Your task to perform on an android device: turn off location history Image 0: 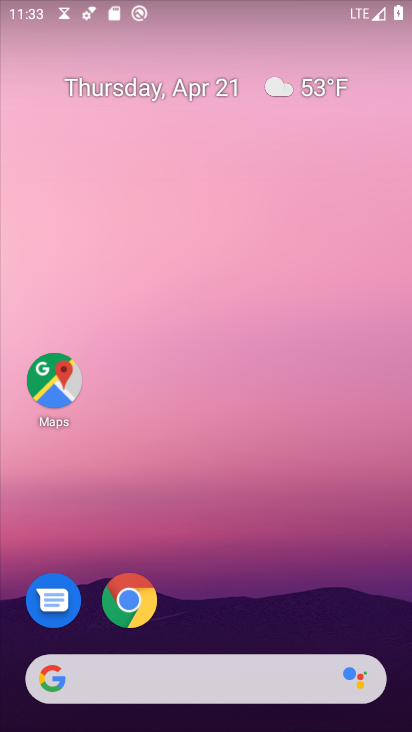
Step 0: drag from (280, 563) to (290, 14)
Your task to perform on an android device: turn off location history Image 1: 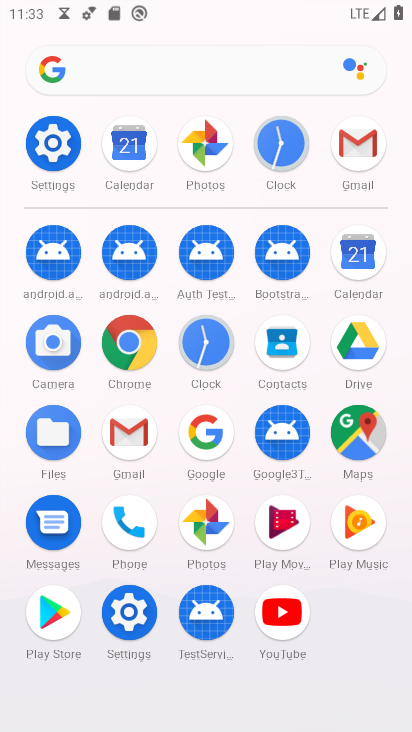
Step 1: click (59, 132)
Your task to perform on an android device: turn off location history Image 2: 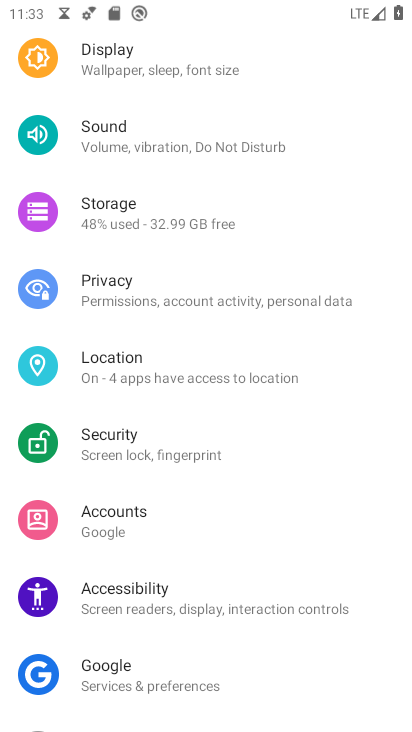
Step 2: click (167, 371)
Your task to perform on an android device: turn off location history Image 3: 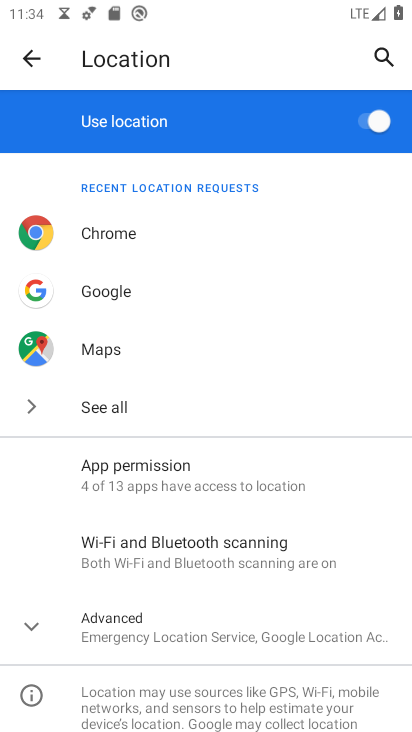
Step 3: drag from (259, 626) to (227, 197)
Your task to perform on an android device: turn off location history Image 4: 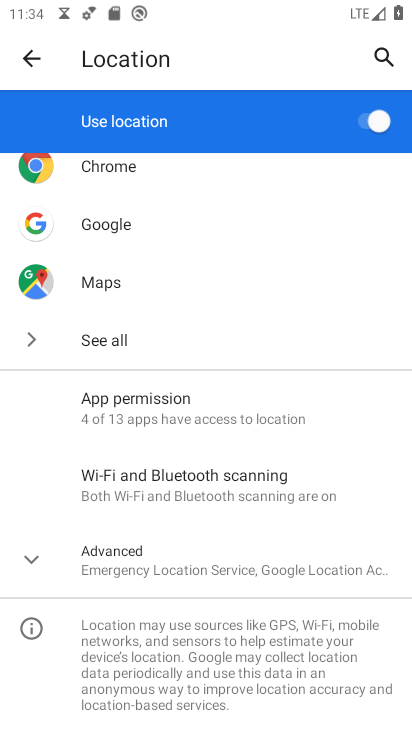
Step 4: click (223, 553)
Your task to perform on an android device: turn off location history Image 5: 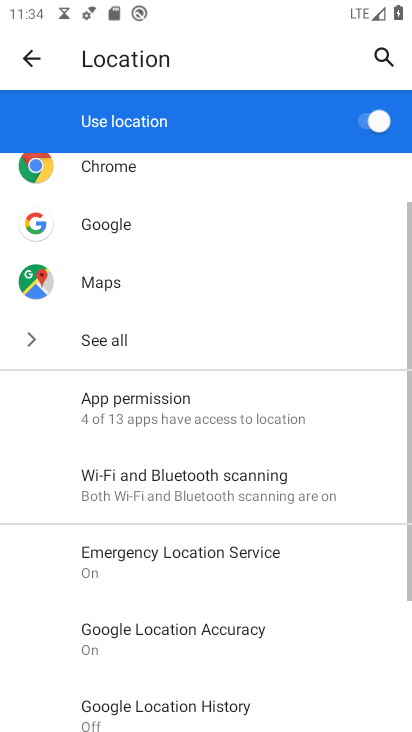
Step 5: drag from (239, 654) to (262, 391)
Your task to perform on an android device: turn off location history Image 6: 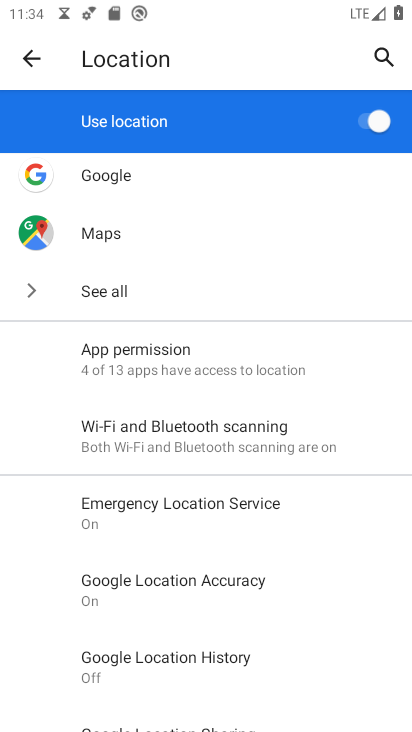
Step 6: click (230, 652)
Your task to perform on an android device: turn off location history Image 7: 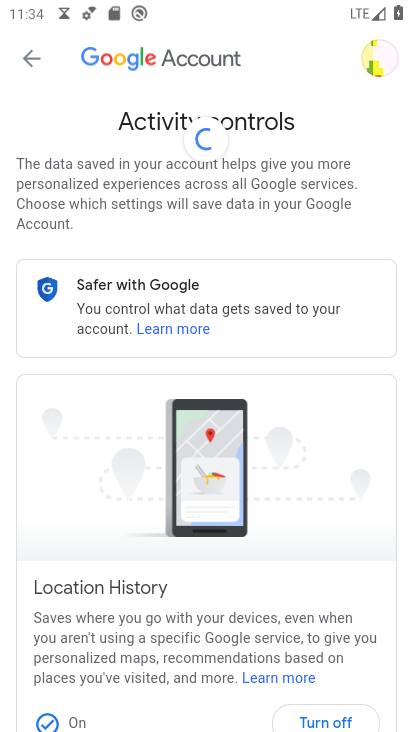
Step 7: drag from (214, 602) to (206, 368)
Your task to perform on an android device: turn off location history Image 8: 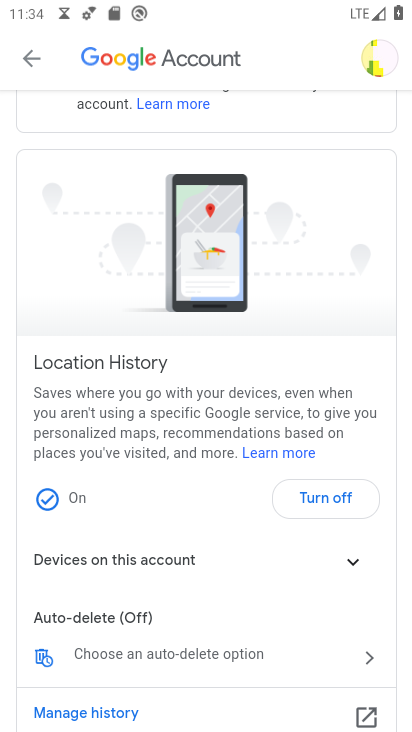
Step 8: click (341, 500)
Your task to perform on an android device: turn off location history Image 9: 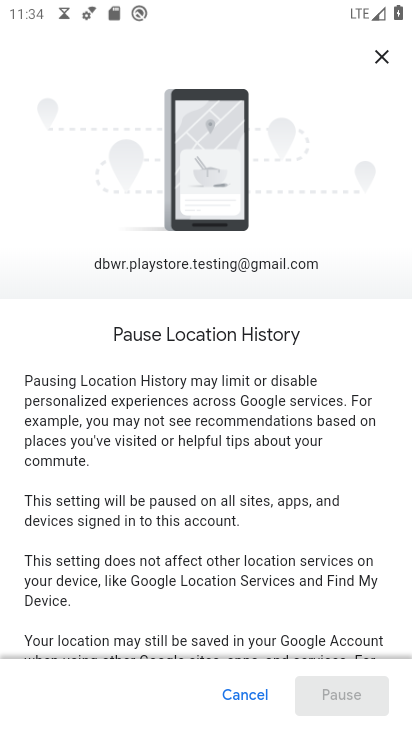
Step 9: drag from (251, 562) to (265, 142)
Your task to perform on an android device: turn off location history Image 10: 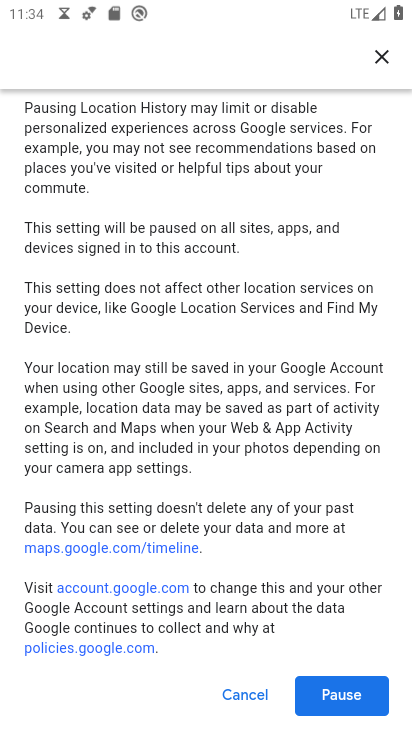
Step 10: click (347, 690)
Your task to perform on an android device: turn off location history Image 11: 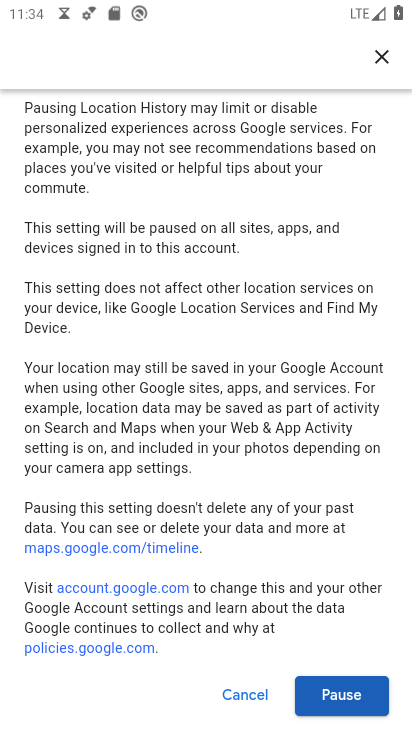
Step 11: click (356, 695)
Your task to perform on an android device: turn off location history Image 12: 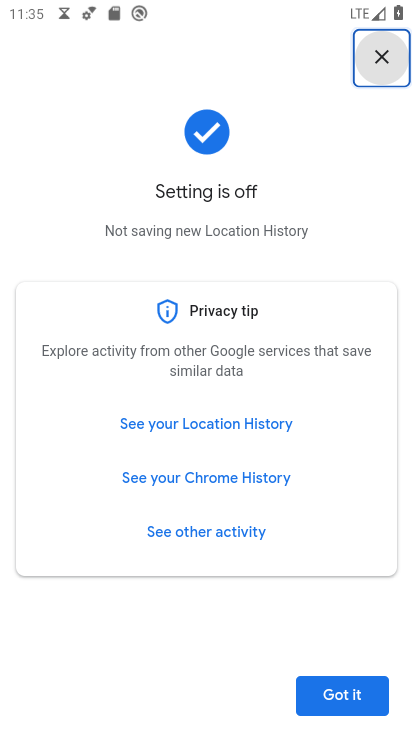
Step 12: click (351, 696)
Your task to perform on an android device: turn off location history Image 13: 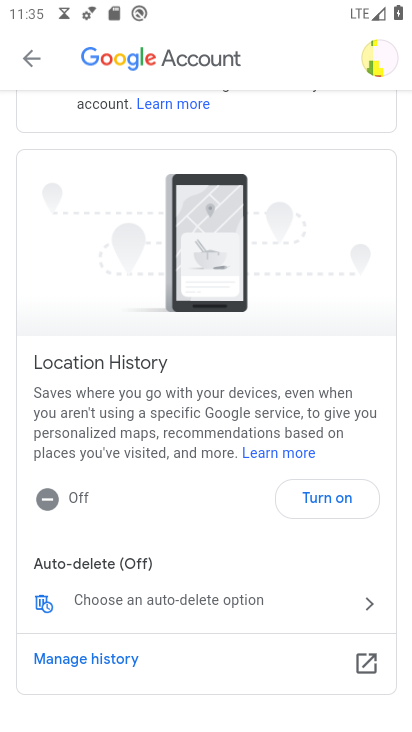
Step 13: task complete